Your task to perform on an android device: Empty the shopping cart on walmart.com. Search for usb-c on walmart.com, select the first entry, add it to the cart, then select checkout. Image 0: 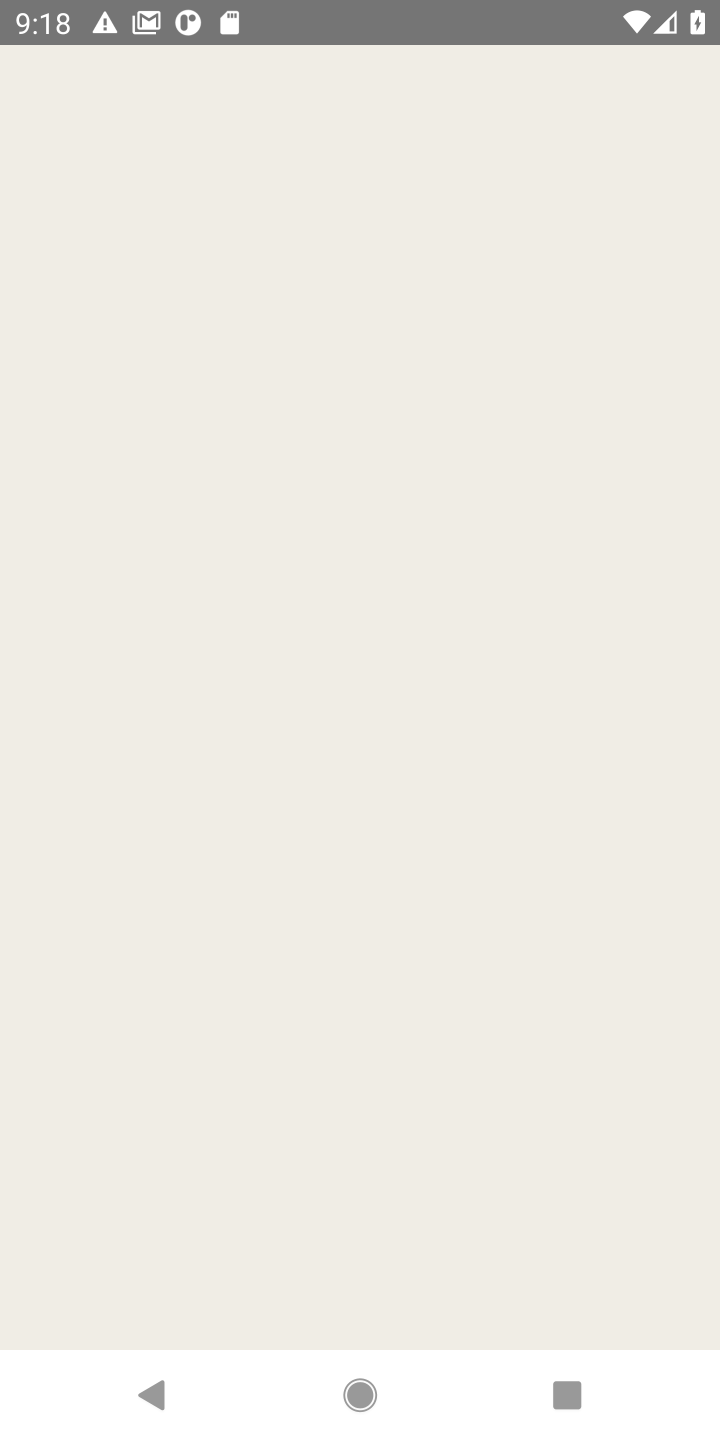
Step 0: drag from (338, 1277) to (360, 546)
Your task to perform on an android device: Empty the shopping cart on walmart.com. Search for usb-c on walmart.com, select the first entry, add it to the cart, then select checkout. Image 1: 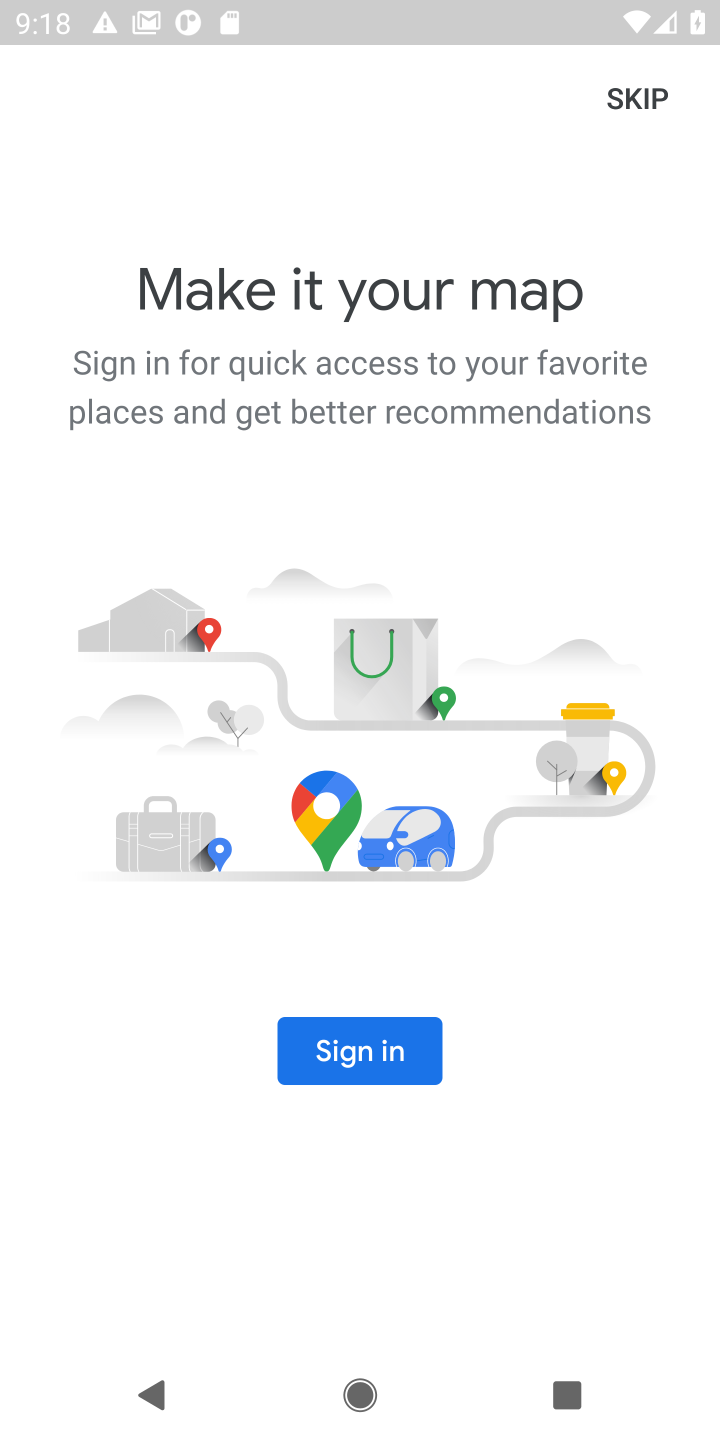
Step 1: press home button
Your task to perform on an android device: Empty the shopping cart on walmart.com. Search for usb-c on walmart.com, select the first entry, add it to the cart, then select checkout. Image 2: 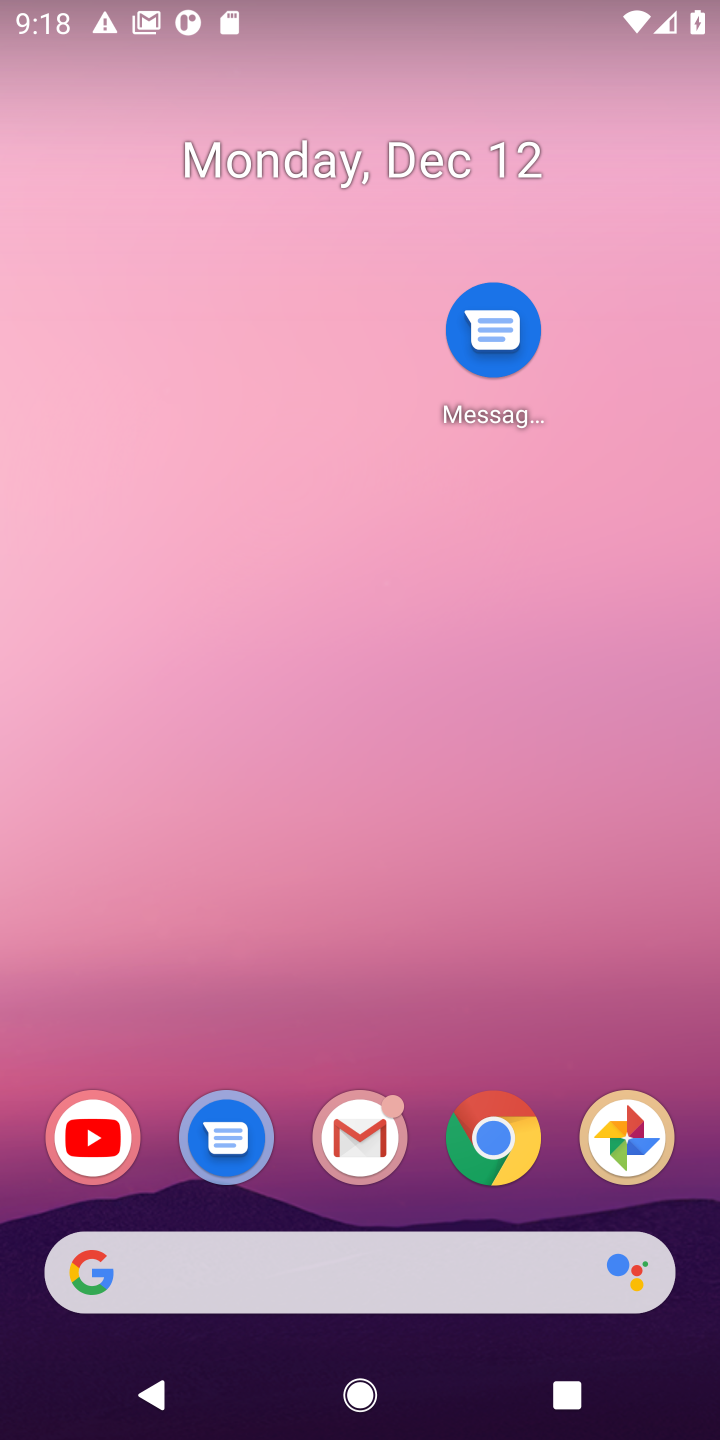
Step 2: drag from (329, 1248) to (315, 639)
Your task to perform on an android device: Empty the shopping cart on walmart.com. Search for usb-c on walmart.com, select the first entry, add it to the cart, then select checkout. Image 3: 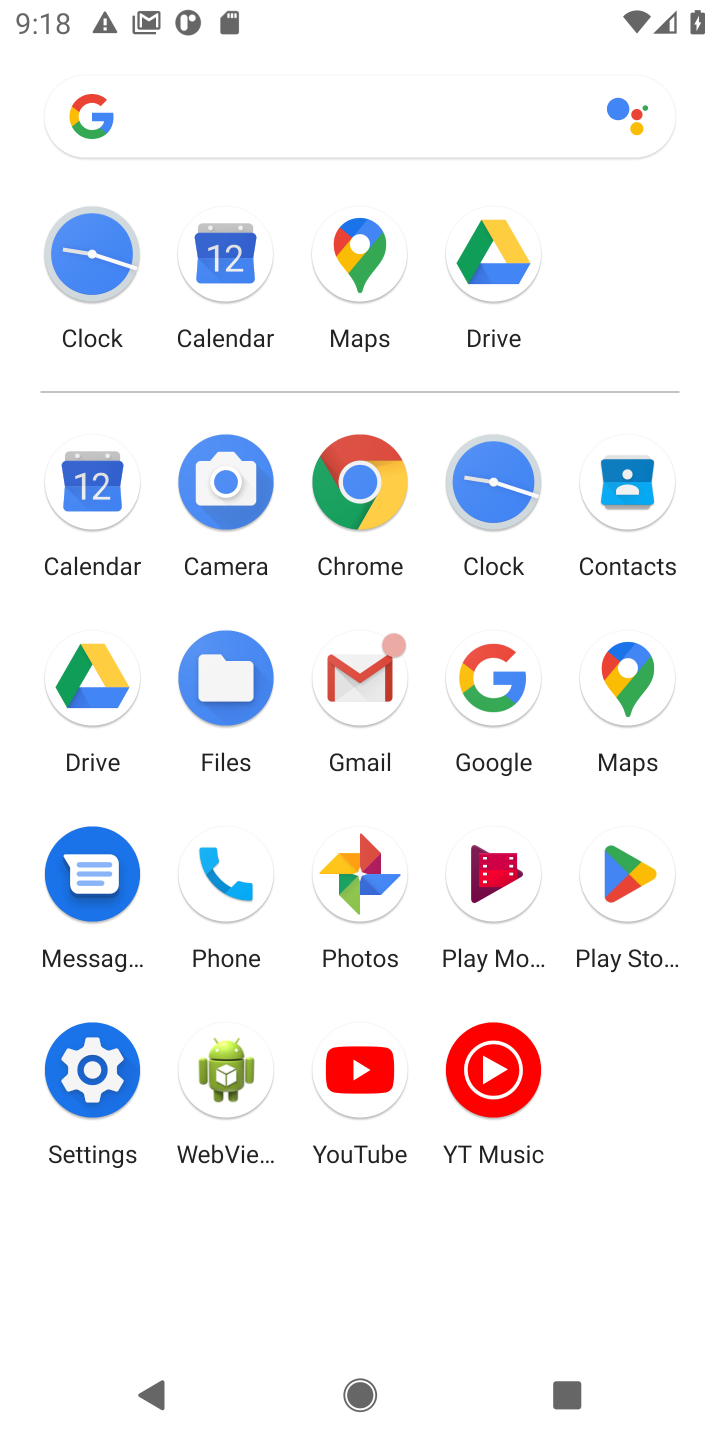
Step 3: click (486, 677)
Your task to perform on an android device: Empty the shopping cart on walmart.com. Search for usb-c on walmart.com, select the first entry, add it to the cart, then select checkout. Image 4: 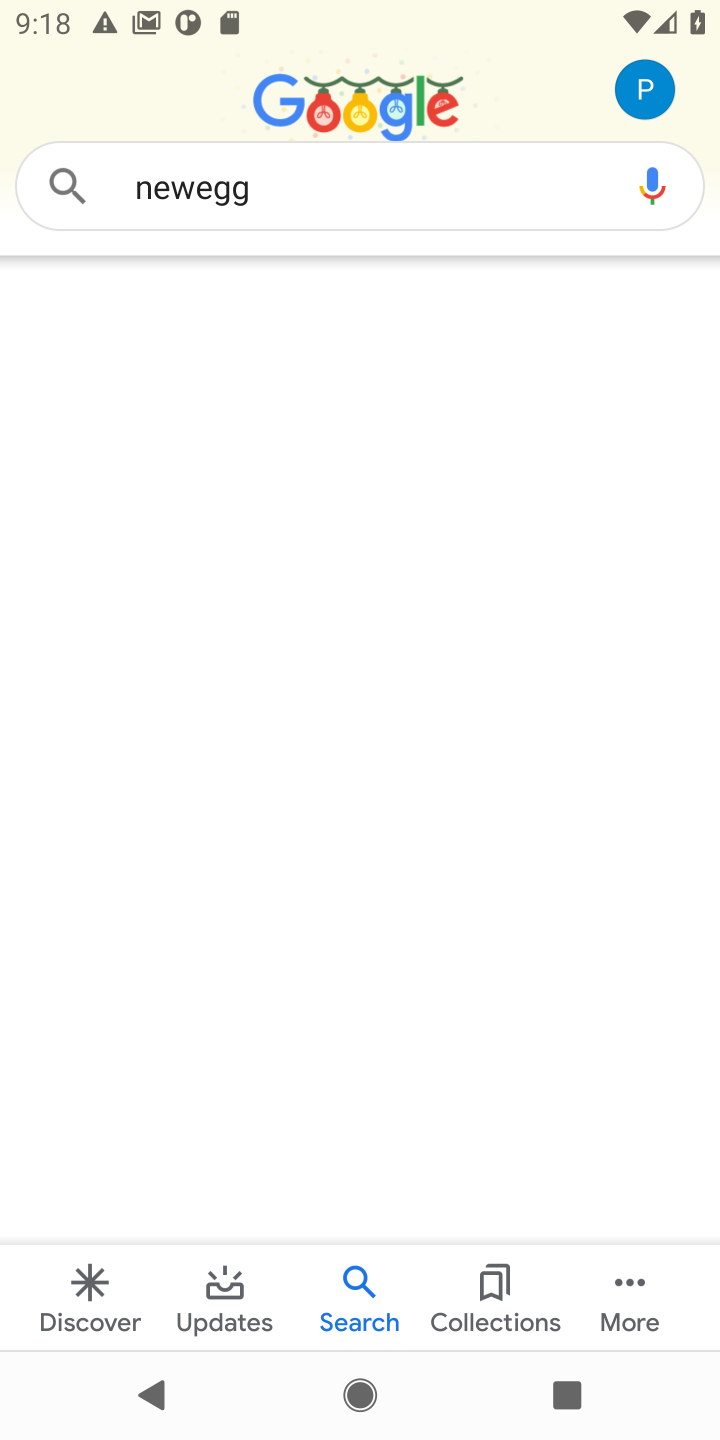
Step 4: click (208, 187)
Your task to perform on an android device: Empty the shopping cart on walmart.com. Search for usb-c on walmart.com, select the first entry, add it to the cart, then select checkout. Image 5: 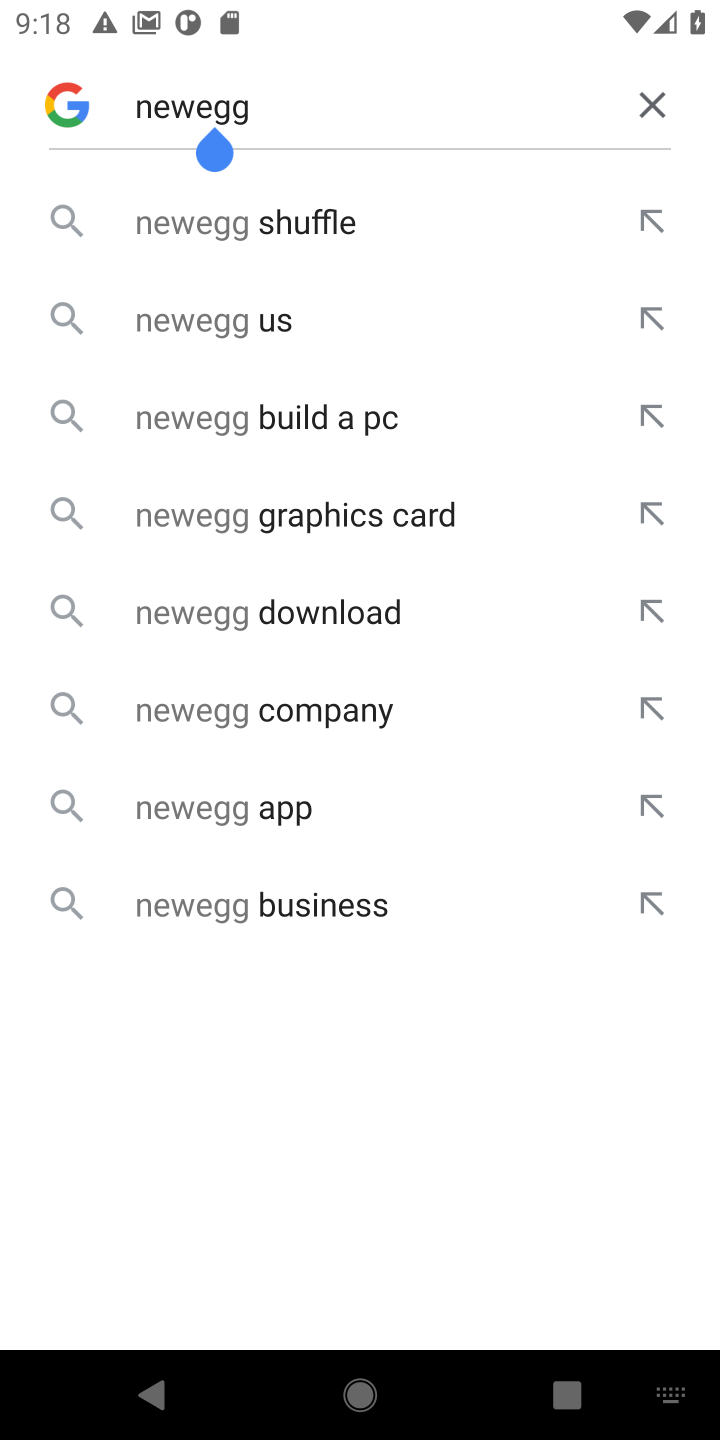
Step 5: click (630, 117)
Your task to perform on an android device: Empty the shopping cart on walmart.com. Search for usb-c on walmart.com, select the first entry, add it to the cart, then select checkout. Image 6: 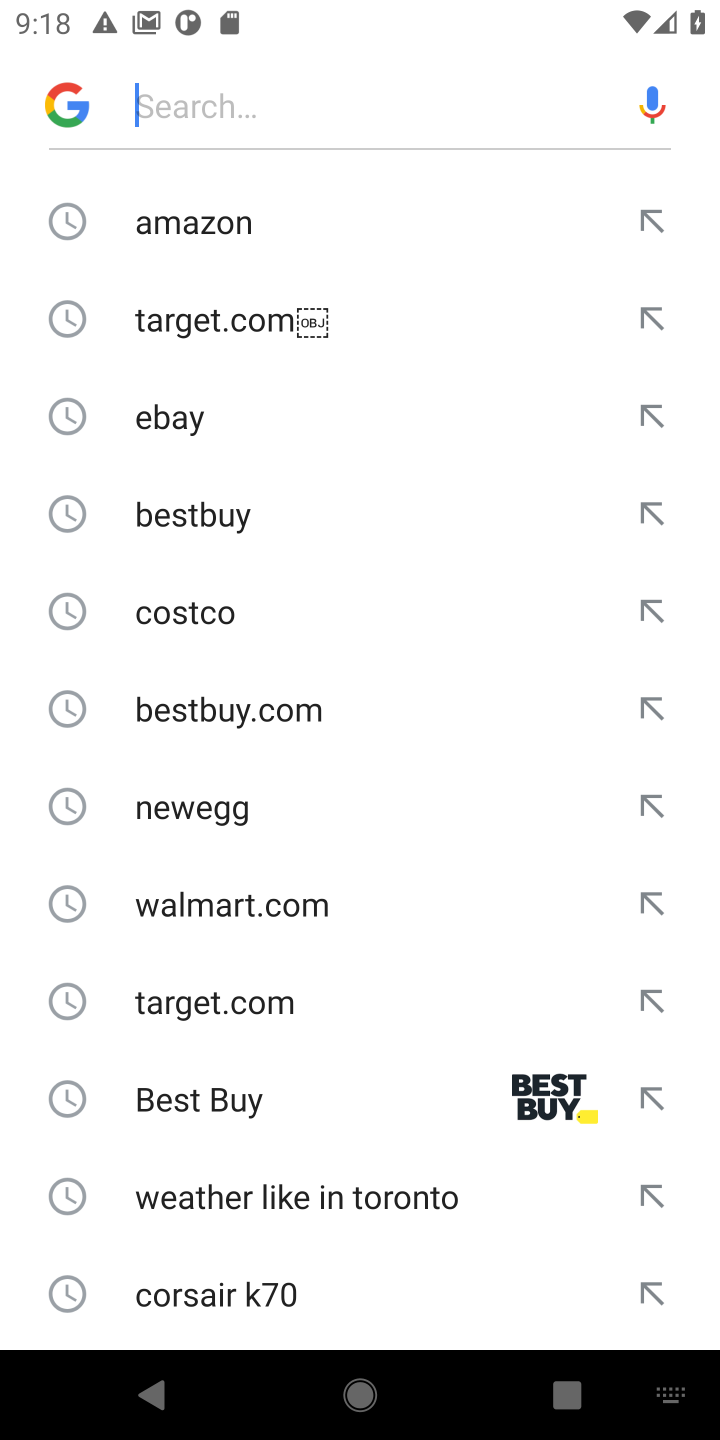
Step 6: click (187, 922)
Your task to perform on an android device: Empty the shopping cart on walmart.com. Search for usb-c on walmart.com, select the first entry, add it to the cart, then select checkout. Image 7: 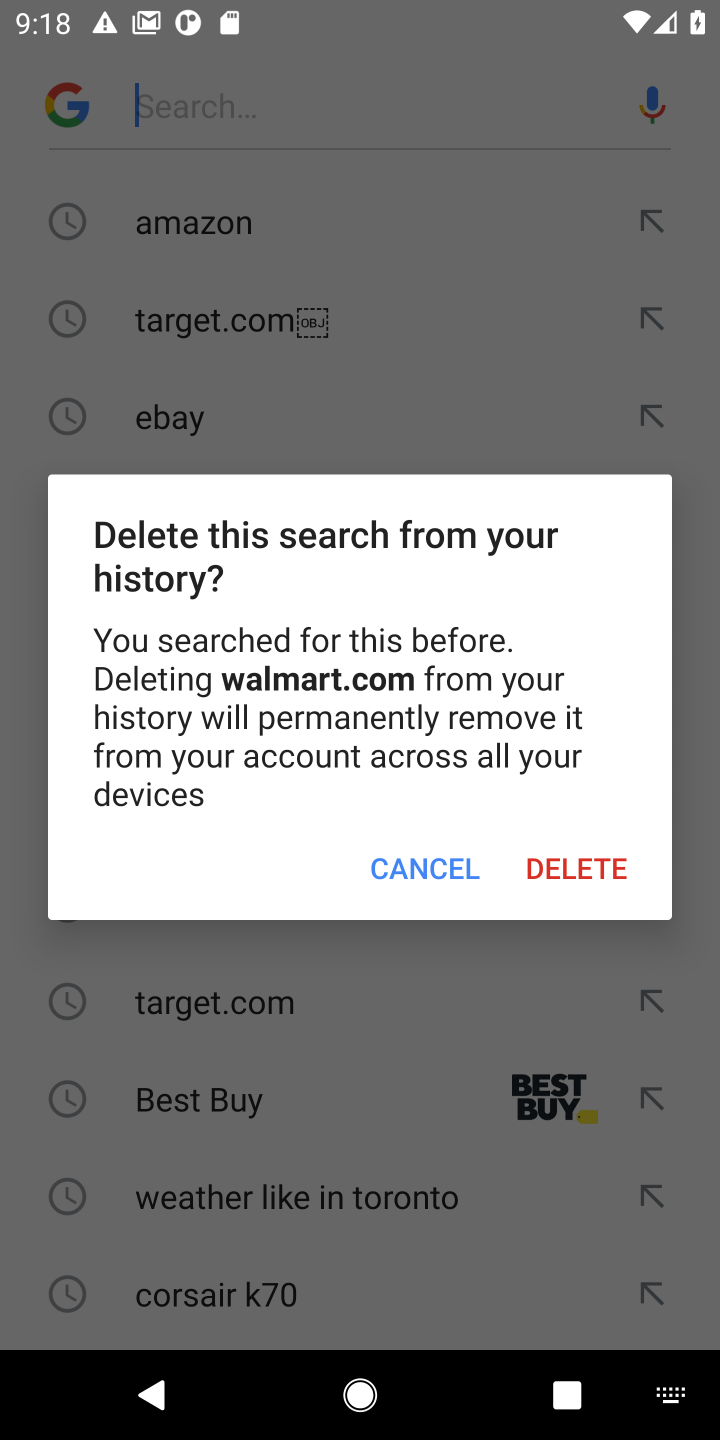
Step 7: click (449, 873)
Your task to perform on an android device: Empty the shopping cart on walmart.com. Search for usb-c on walmart.com, select the first entry, add it to the cart, then select checkout. Image 8: 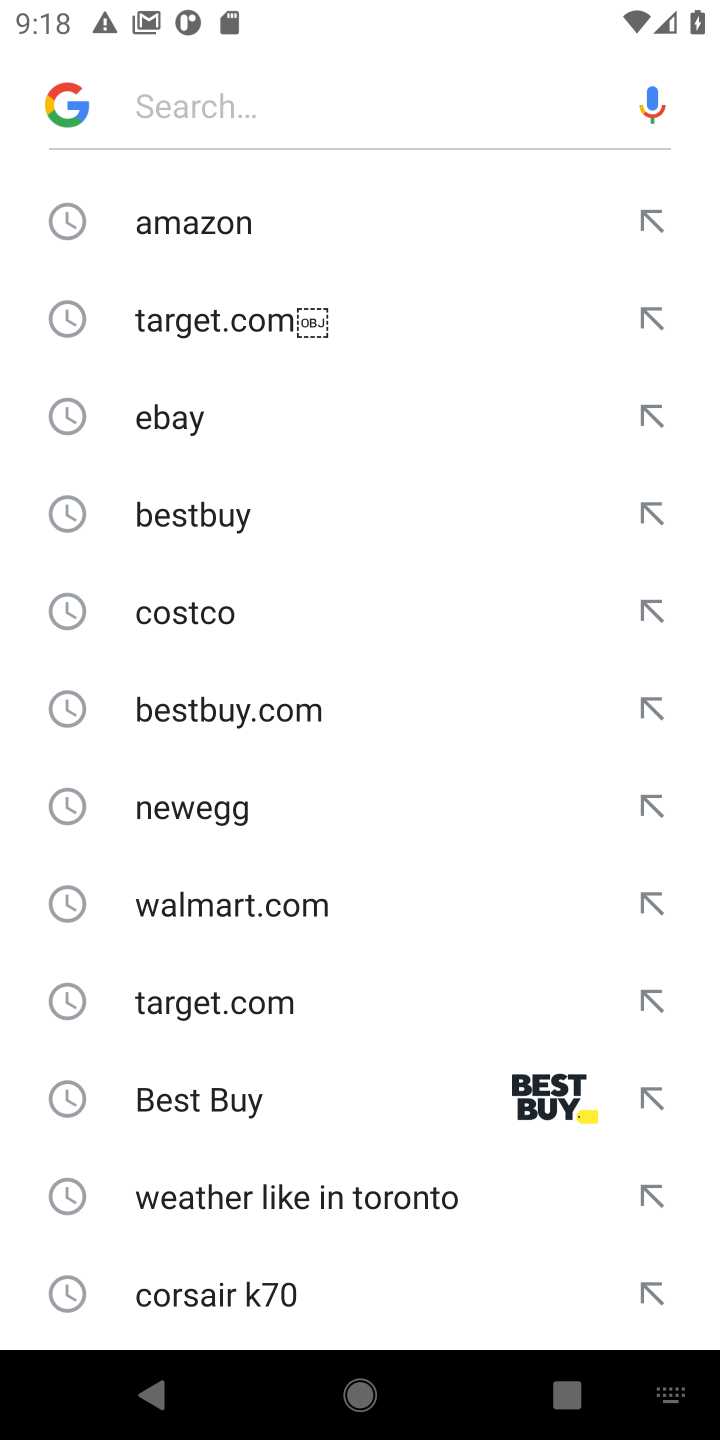
Step 8: click (229, 907)
Your task to perform on an android device: Empty the shopping cart on walmart.com. Search for usb-c on walmart.com, select the first entry, add it to the cart, then select checkout. Image 9: 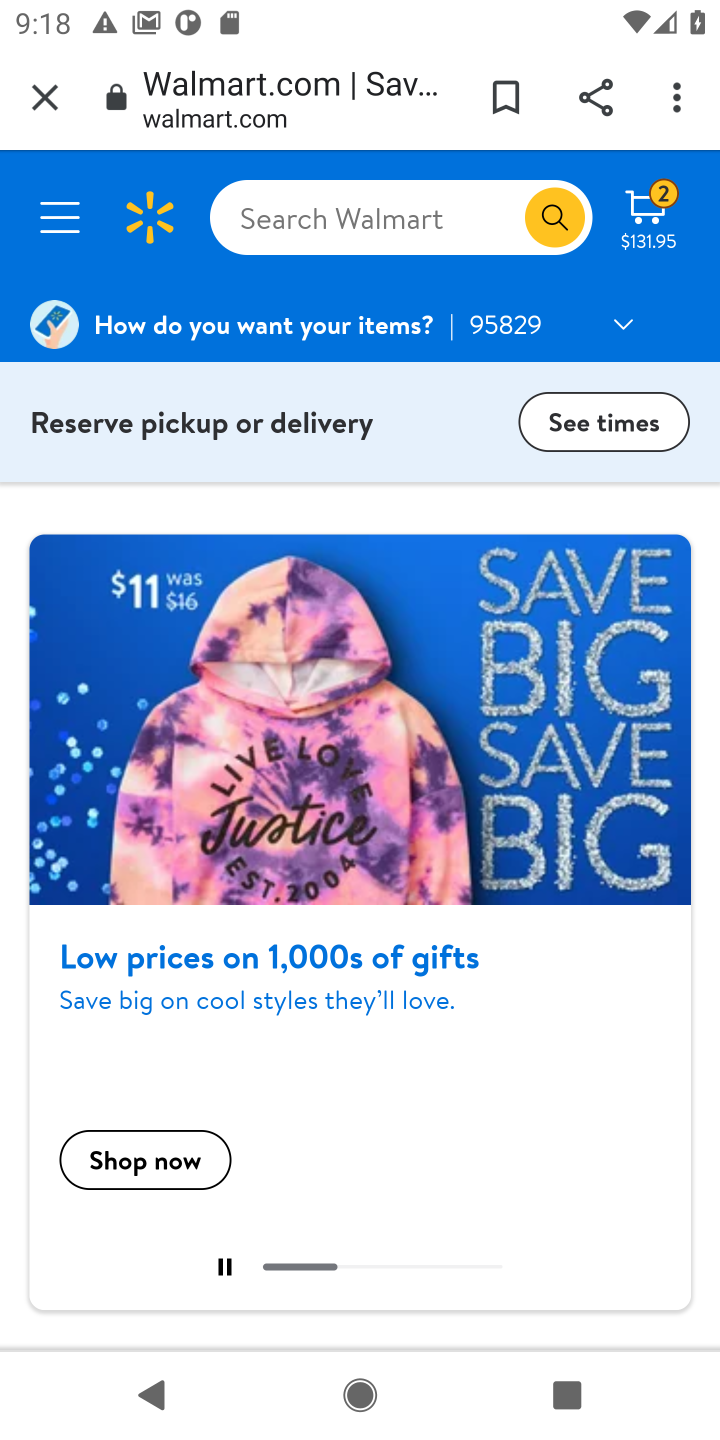
Step 9: click (651, 216)
Your task to perform on an android device: Empty the shopping cart on walmart.com. Search for usb-c on walmart.com, select the first entry, add it to the cart, then select checkout. Image 10: 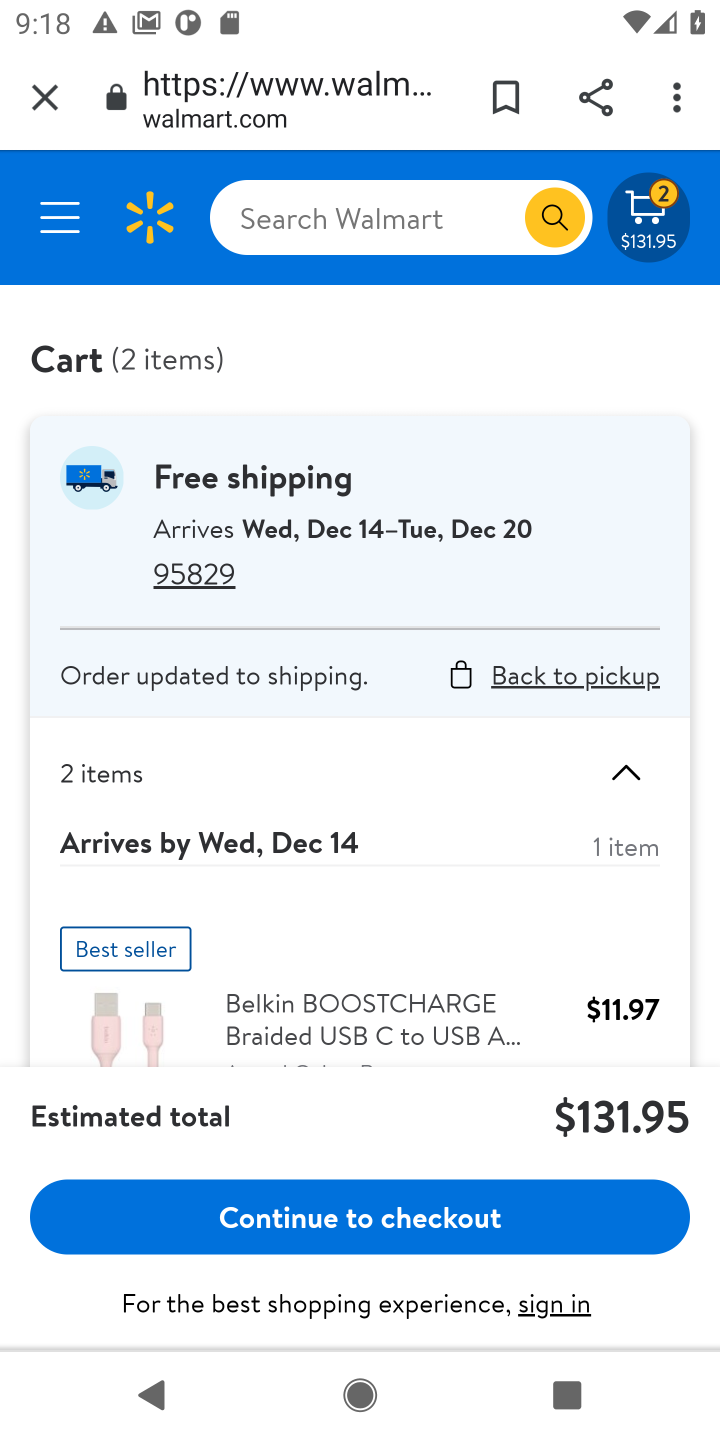
Step 10: drag from (502, 1053) to (480, 502)
Your task to perform on an android device: Empty the shopping cart on walmart.com. Search for usb-c on walmart.com, select the first entry, add it to the cart, then select checkout. Image 11: 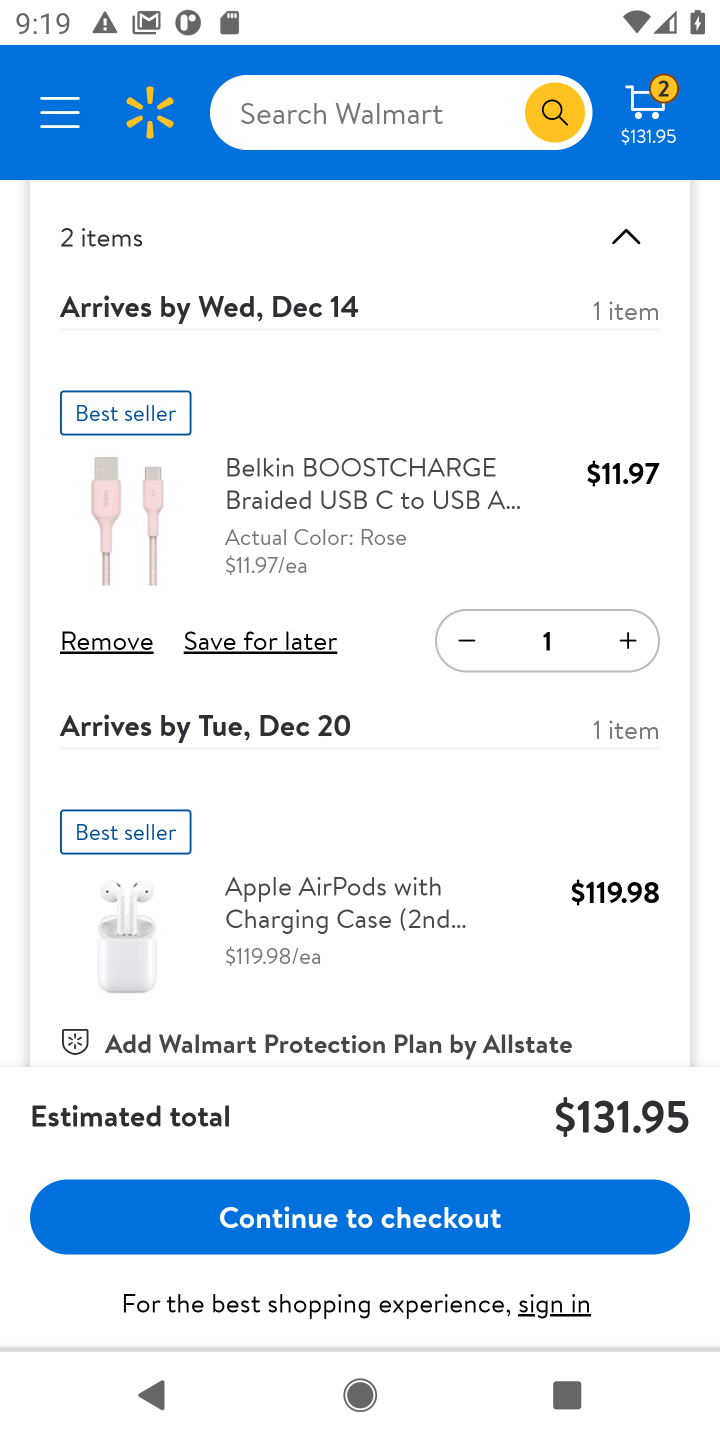
Step 11: click (110, 632)
Your task to perform on an android device: Empty the shopping cart on walmart.com. Search for usb-c on walmart.com, select the first entry, add it to the cart, then select checkout. Image 12: 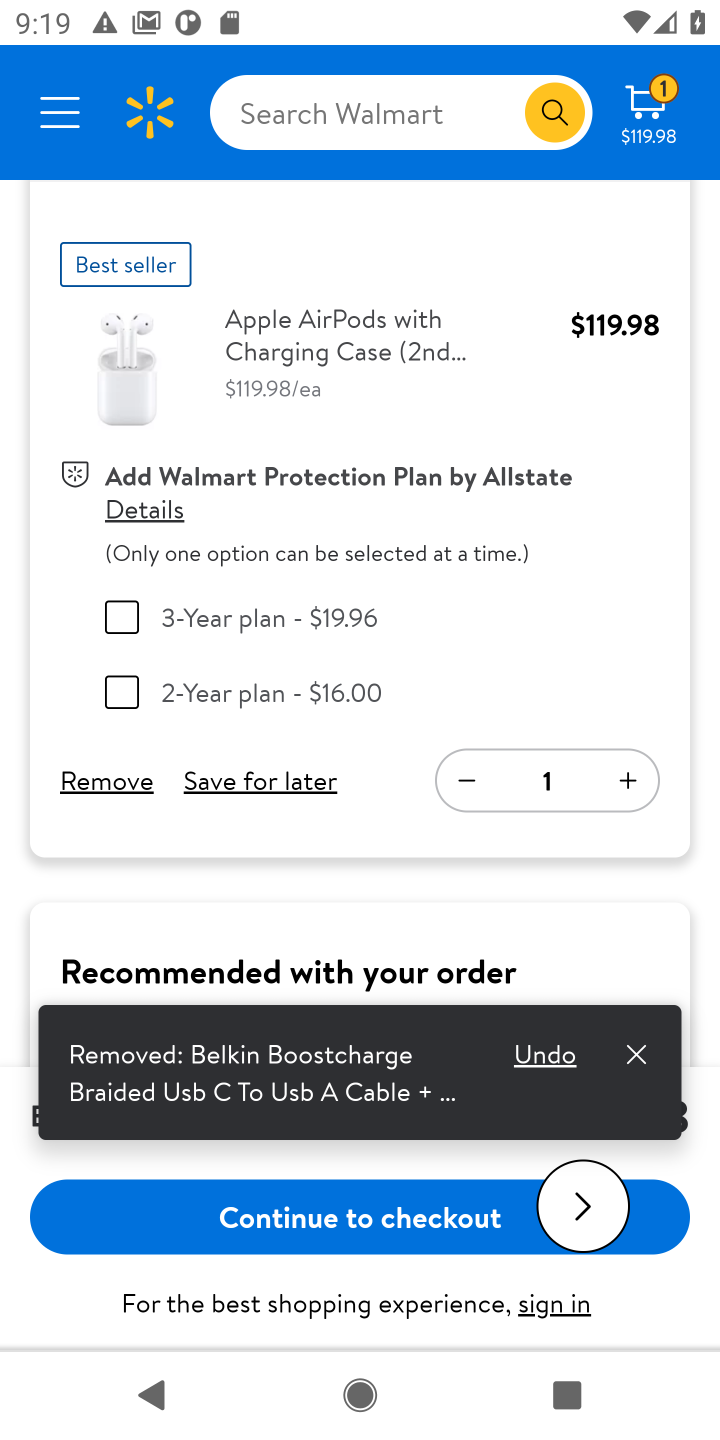
Step 12: click (108, 781)
Your task to perform on an android device: Empty the shopping cart on walmart.com. Search for usb-c on walmart.com, select the first entry, add it to the cart, then select checkout. Image 13: 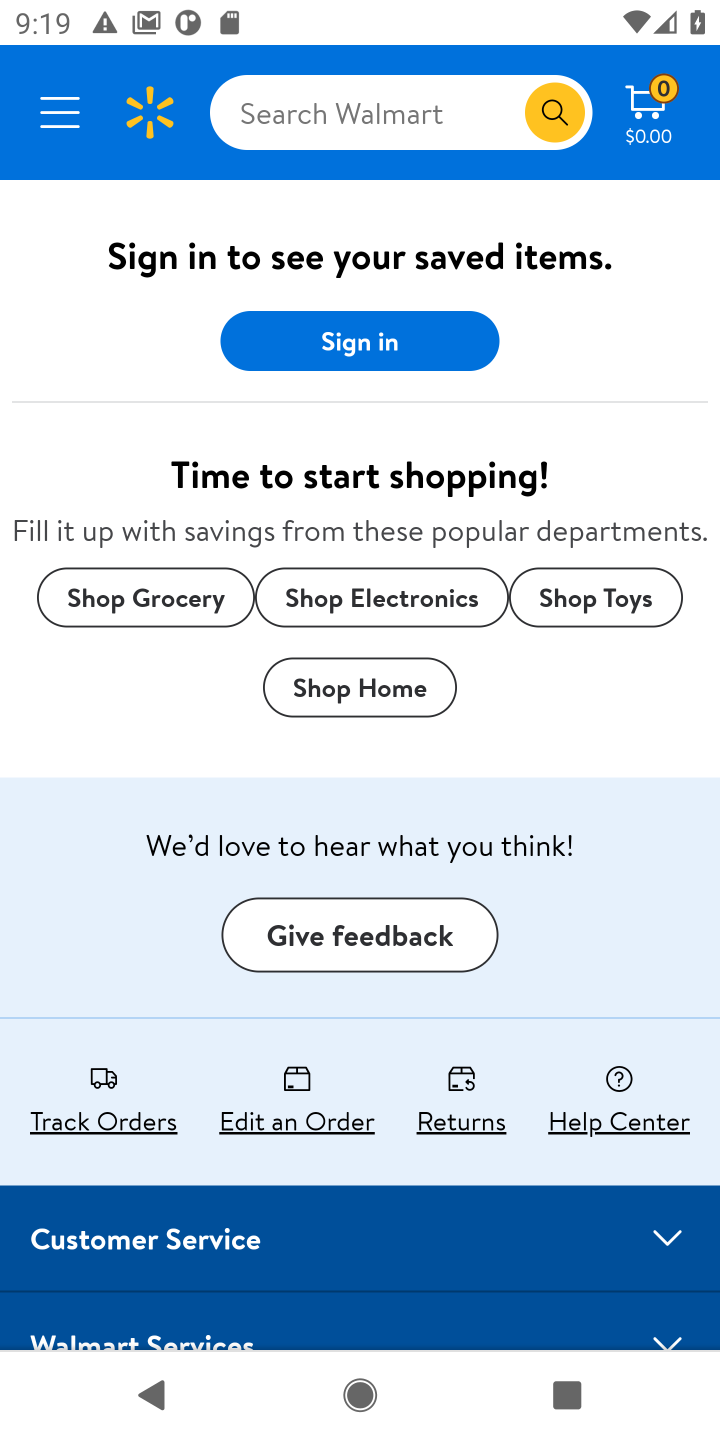
Step 13: click (311, 114)
Your task to perform on an android device: Empty the shopping cart on walmart.com. Search for usb-c on walmart.com, select the first entry, add it to the cart, then select checkout. Image 14: 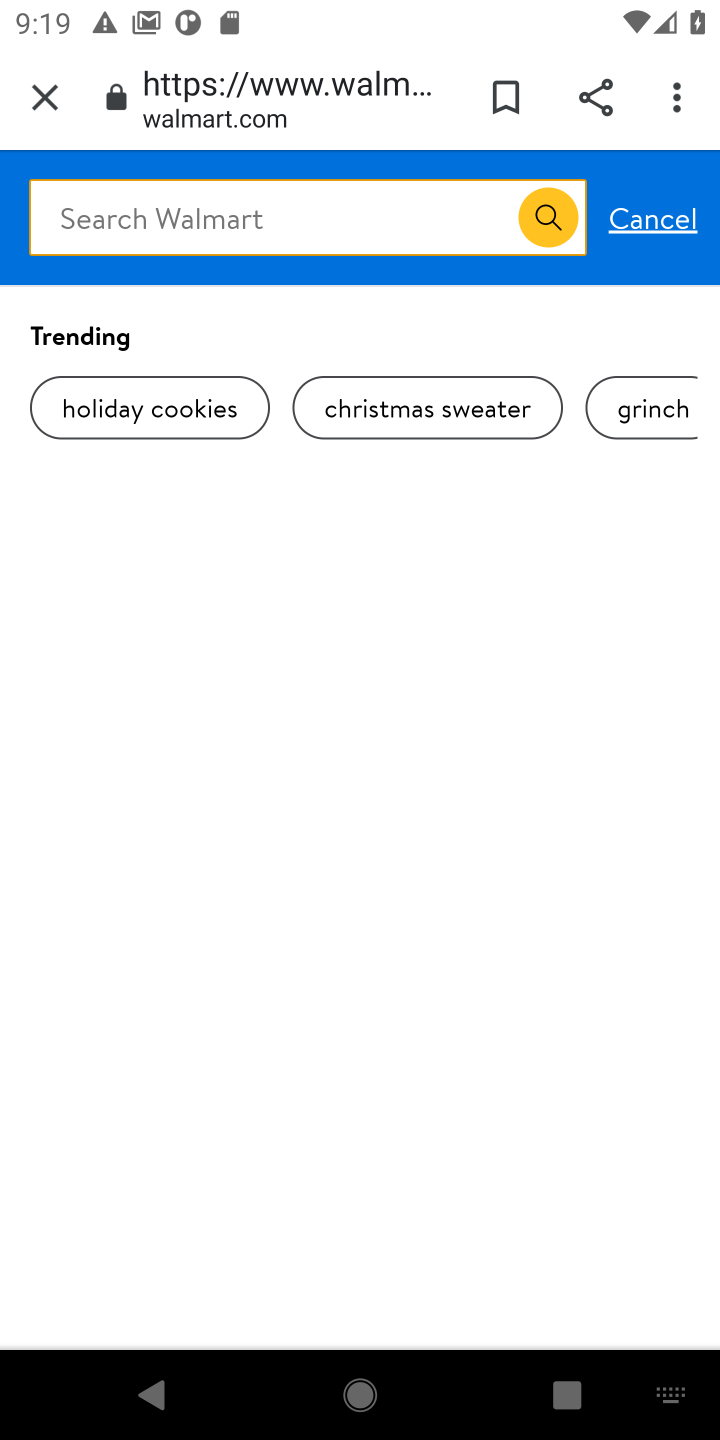
Step 14: type "usb-c"
Your task to perform on an android device: Empty the shopping cart on walmart.com. Search for usb-c on walmart.com, select the first entry, add it to the cart, then select checkout. Image 15: 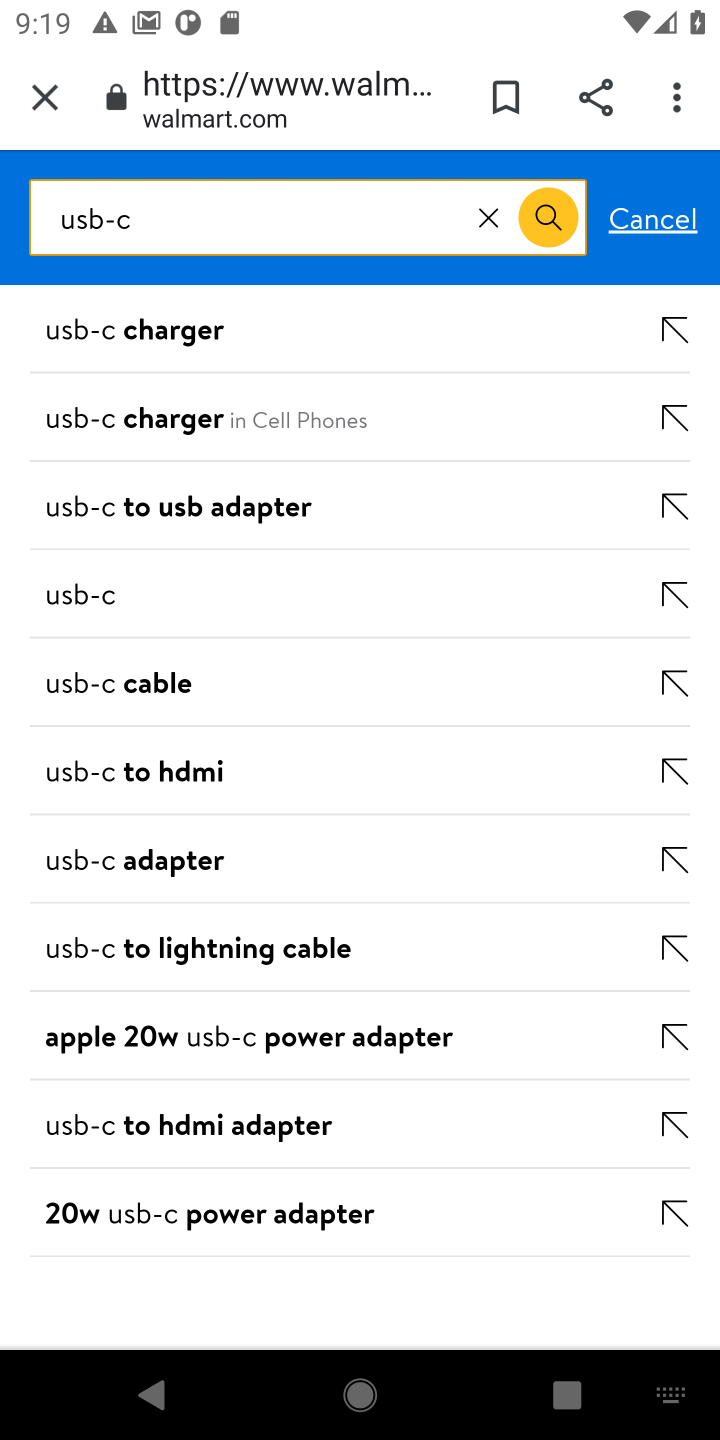
Step 15: click (93, 329)
Your task to perform on an android device: Empty the shopping cart on walmart.com. Search for usb-c on walmart.com, select the first entry, add it to the cart, then select checkout. Image 16: 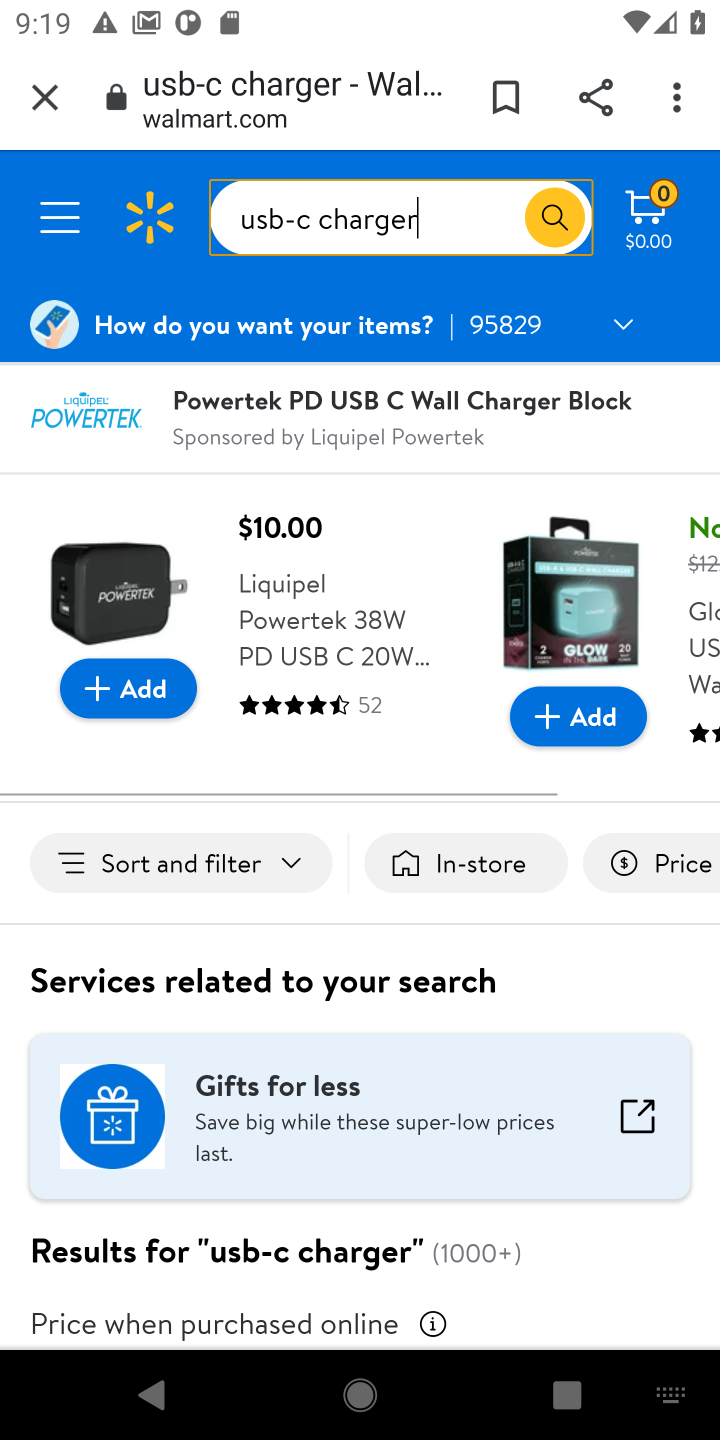
Step 16: drag from (447, 1008) to (371, 438)
Your task to perform on an android device: Empty the shopping cart on walmart.com. Search for usb-c on walmart.com, select the first entry, add it to the cart, then select checkout. Image 17: 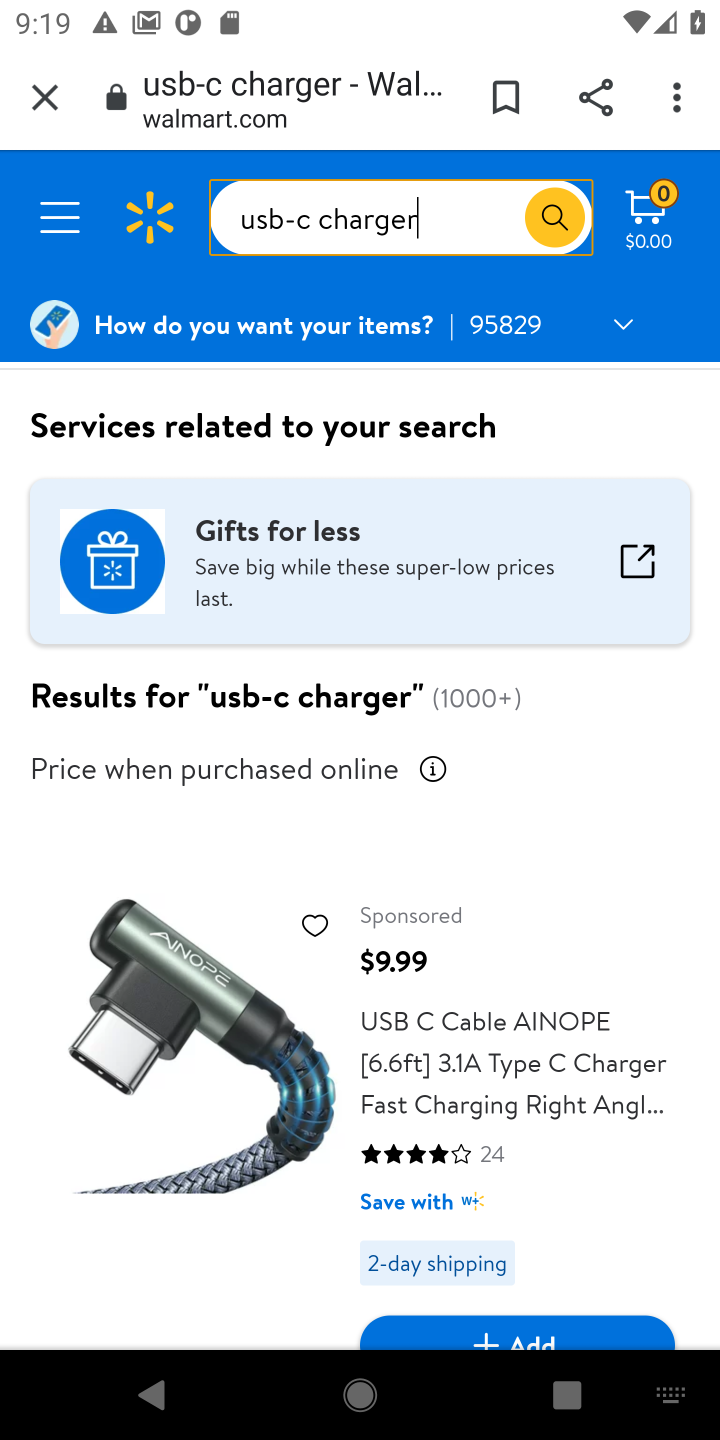
Step 17: drag from (537, 957) to (450, 413)
Your task to perform on an android device: Empty the shopping cart on walmart.com. Search for usb-c on walmart.com, select the first entry, add it to the cart, then select checkout. Image 18: 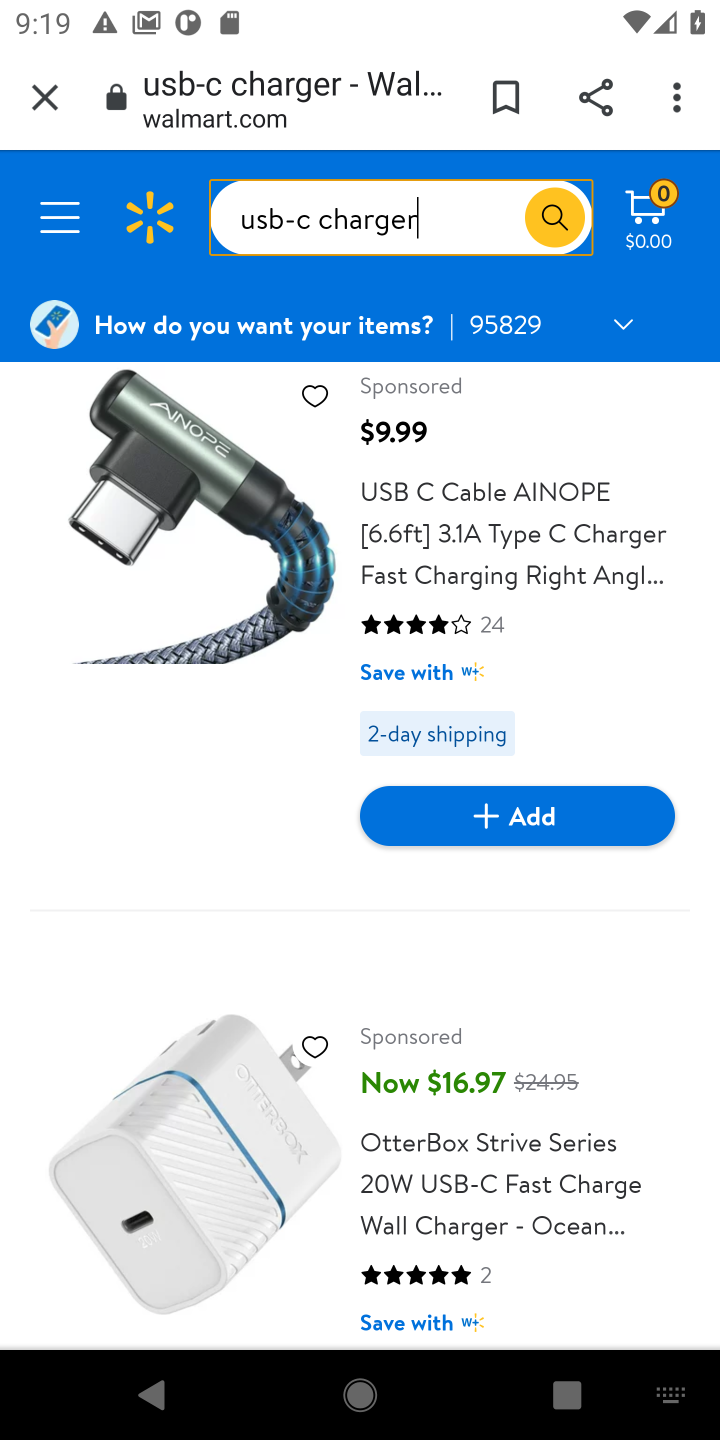
Step 18: click (521, 815)
Your task to perform on an android device: Empty the shopping cart on walmart.com. Search for usb-c on walmart.com, select the first entry, add it to the cart, then select checkout. Image 19: 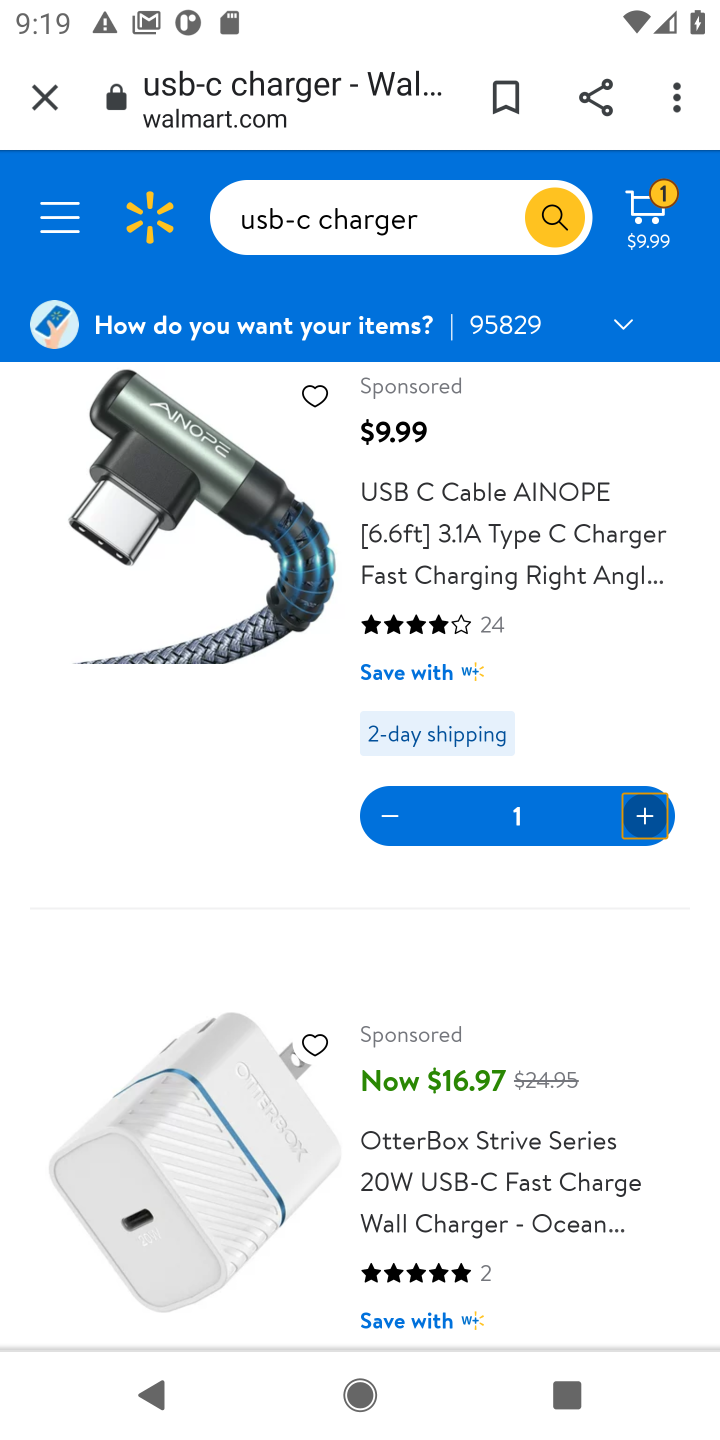
Step 19: click (644, 200)
Your task to perform on an android device: Empty the shopping cart on walmart.com. Search for usb-c on walmart.com, select the first entry, add it to the cart, then select checkout. Image 20: 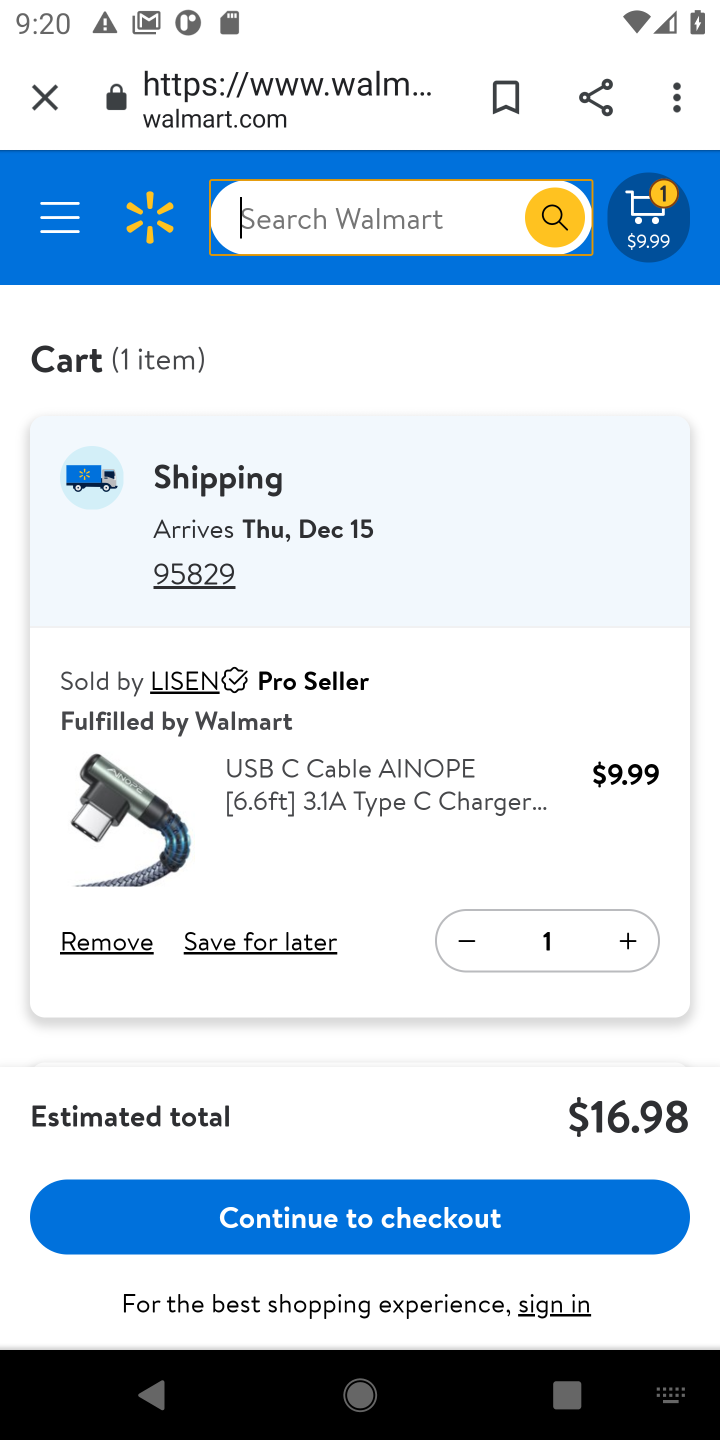
Step 20: click (297, 1226)
Your task to perform on an android device: Empty the shopping cart on walmart.com. Search for usb-c on walmart.com, select the first entry, add it to the cart, then select checkout. Image 21: 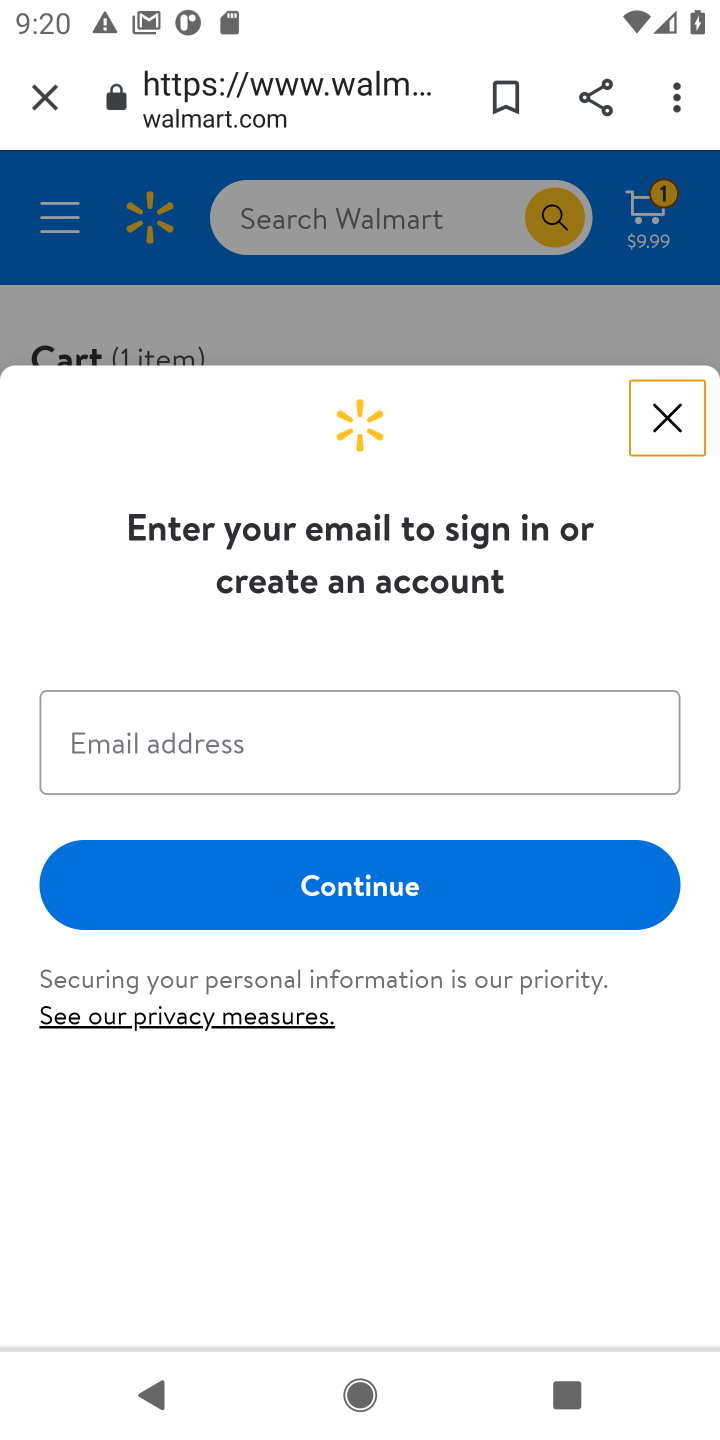
Step 21: click (658, 399)
Your task to perform on an android device: Empty the shopping cart on walmart.com. Search for usb-c on walmart.com, select the first entry, add it to the cart, then select checkout. Image 22: 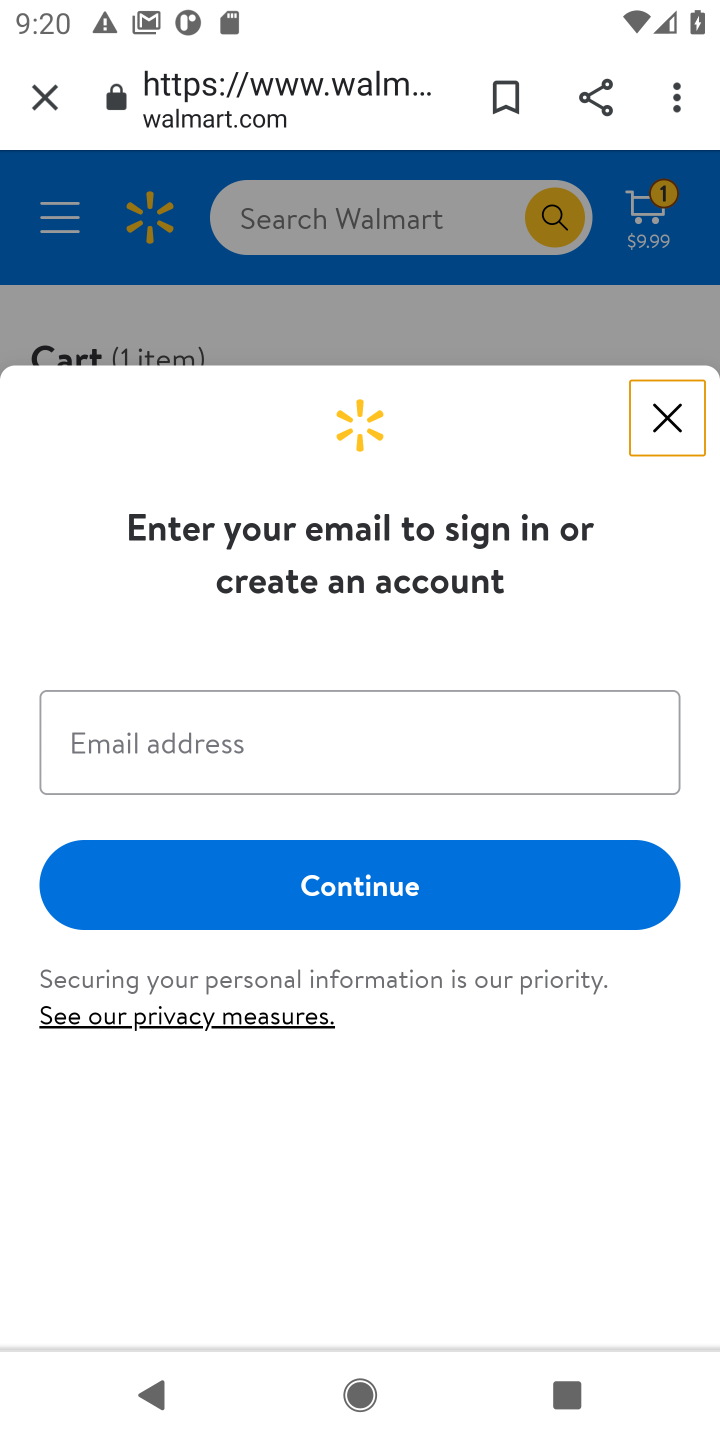
Step 22: task complete